Your task to perform on an android device: Search for seafood restaurants on Google Maps Image 0: 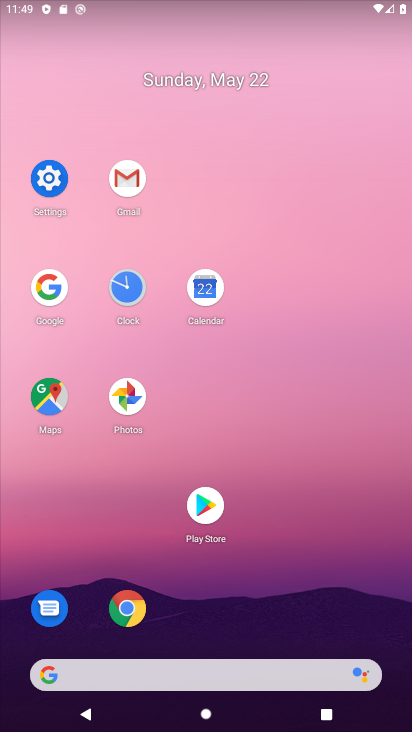
Step 0: click (61, 398)
Your task to perform on an android device: Search for seafood restaurants on Google Maps Image 1: 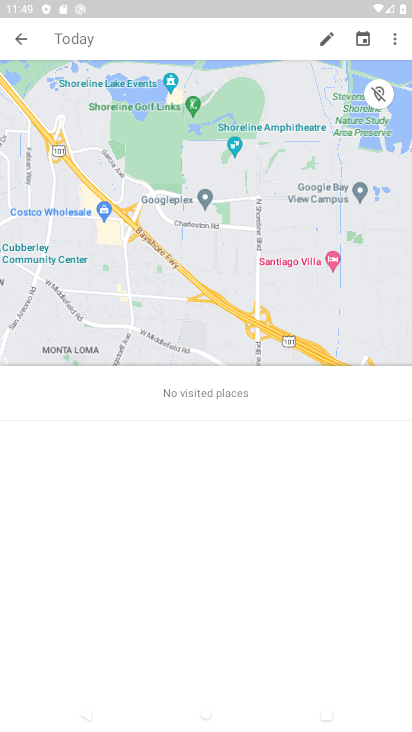
Step 1: click (17, 43)
Your task to perform on an android device: Search for seafood restaurants on Google Maps Image 2: 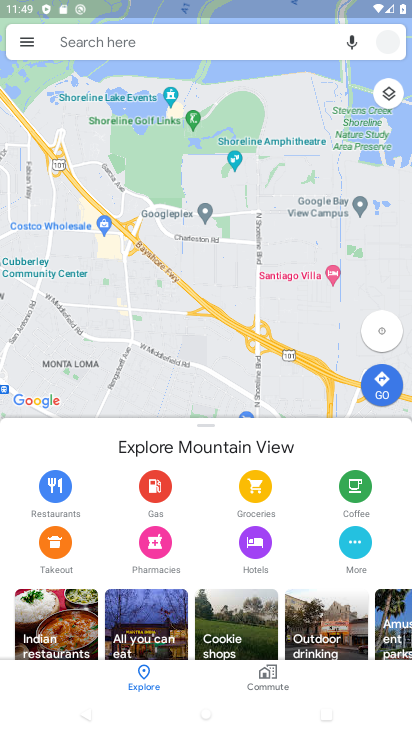
Step 2: click (190, 35)
Your task to perform on an android device: Search for seafood restaurants on Google Maps Image 3: 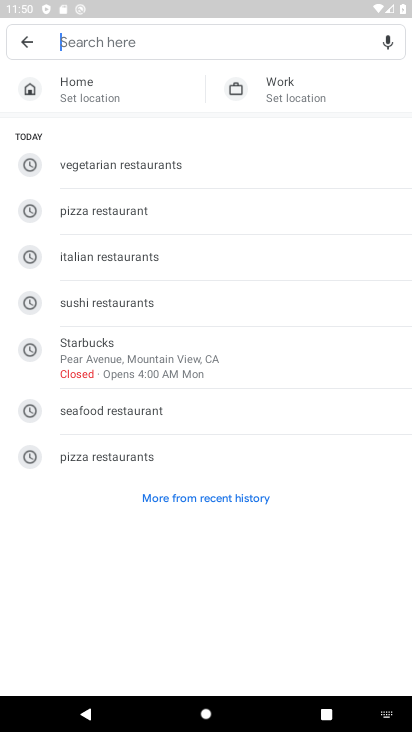
Step 3: click (202, 425)
Your task to perform on an android device: Search for seafood restaurants on Google Maps Image 4: 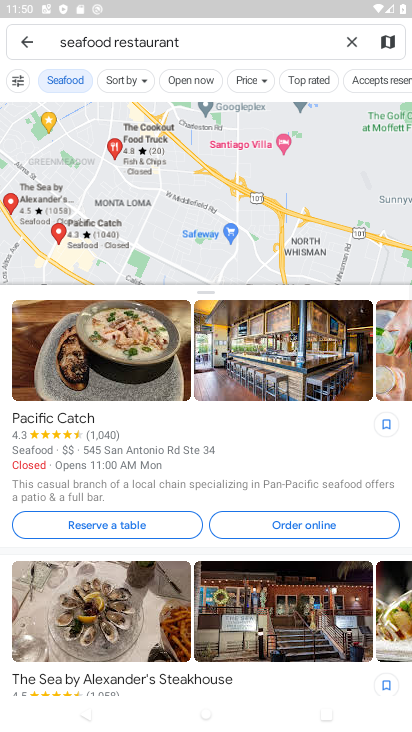
Step 4: task complete